Your task to perform on an android device: Go to internet settings Image 0: 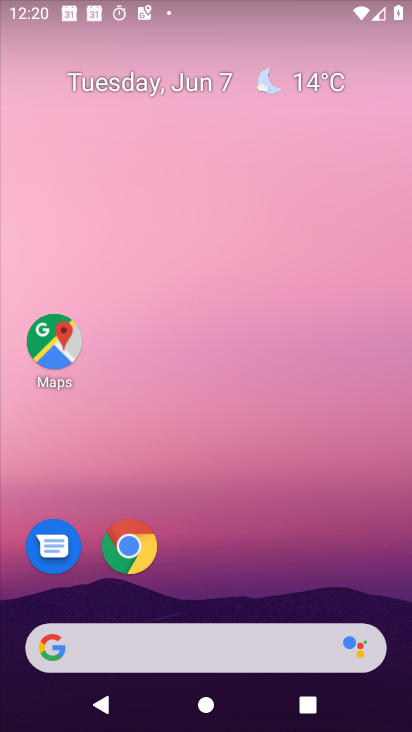
Step 0: drag from (214, 587) to (234, 317)
Your task to perform on an android device: Go to internet settings Image 1: 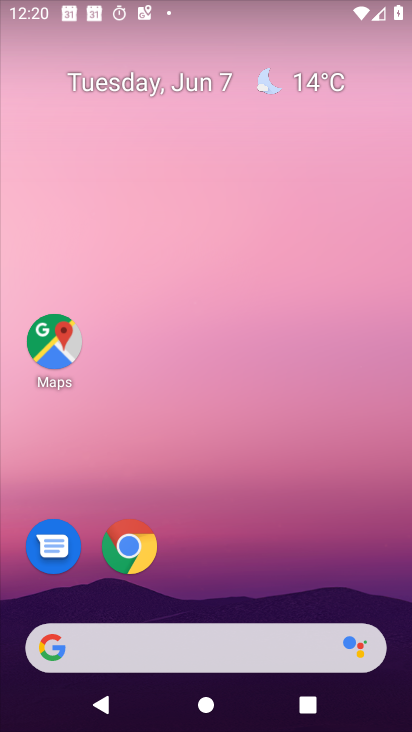
Step 1: drag from (174, 634) to (403, 16)
Your task to perform on an android device: Go to internet settings Image 2: 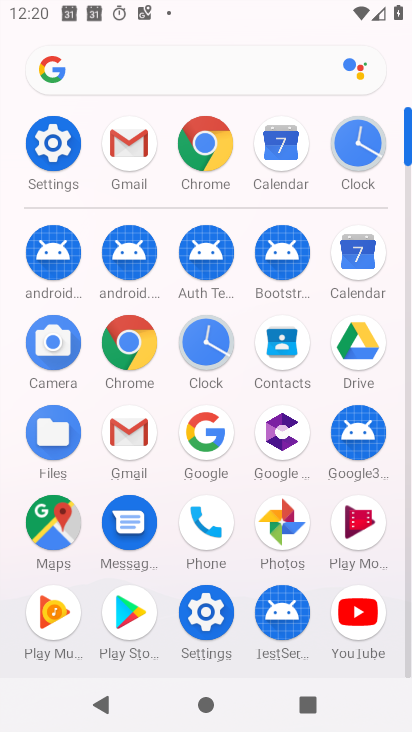
Step 2: click (215, 609)
Your task to perform on an android device: Go to internet settings Image 3: 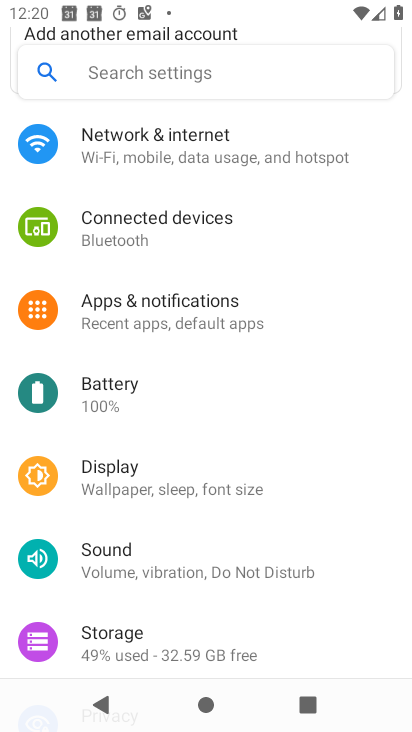
Step 3: drag from (179, 200) to (155, 455)
Your task to perform on an android device: Go to internet settings Image 4: 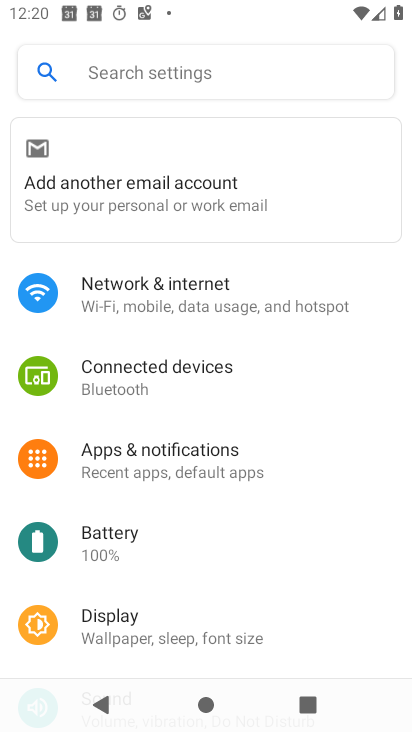
Step 4: click (174, 307)
Your task to perform on an android device: Go to internet settings Image 5: 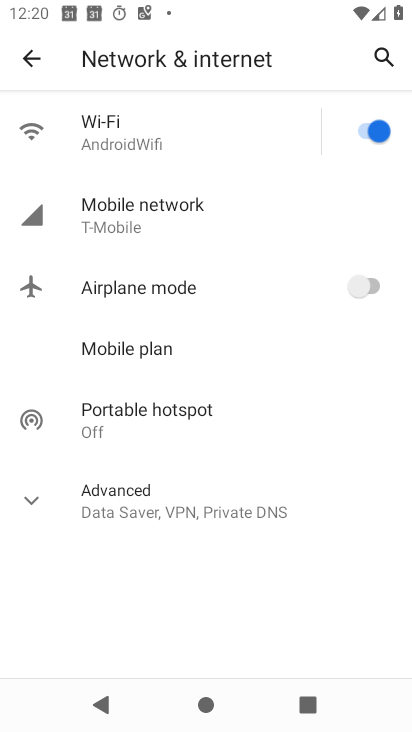
Step 5: task complete